Your task to perform on an android device: What is the recent news? Image 0: 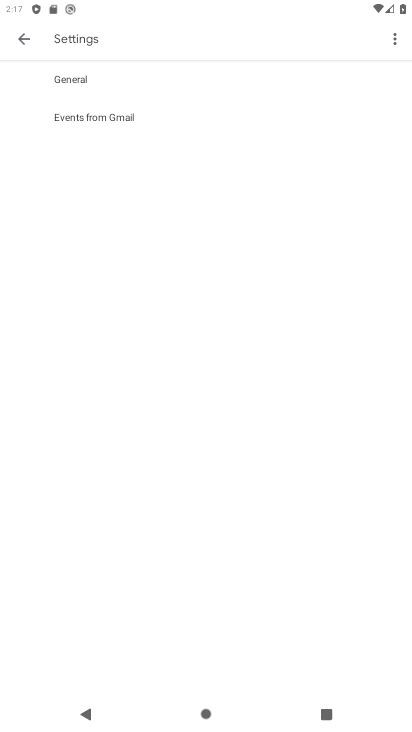
Step 0: press home button
Your task to perform on an android device: What is the recent news? Image 1: 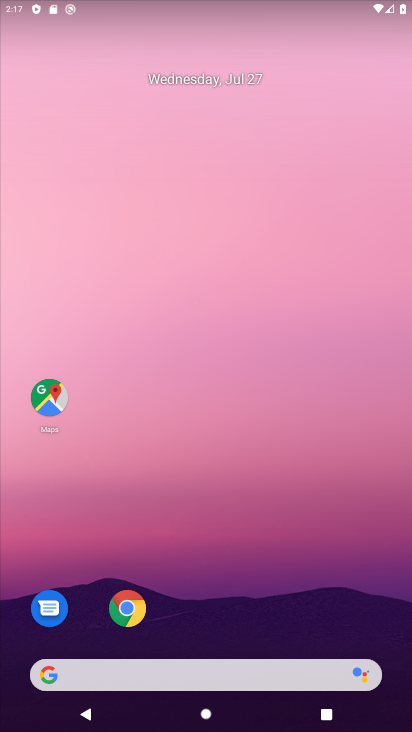
Step 1: click (186, 679)
Your task to perform on an android device: What is the recent news? Image 2: 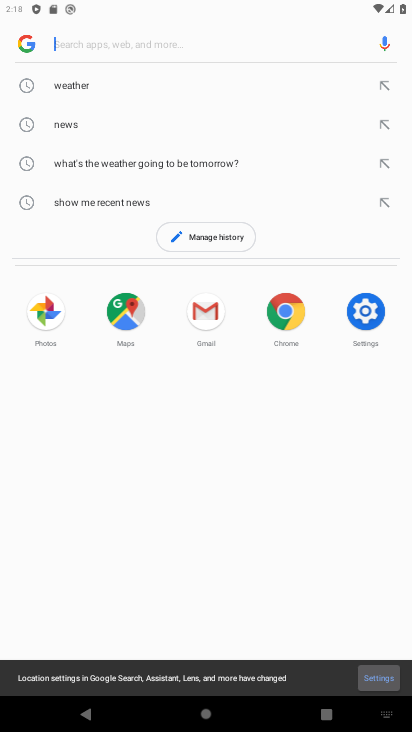
Step 2: type "What is the recent news?"
Your task to perform on an android device: What is the recent news? Image 3: 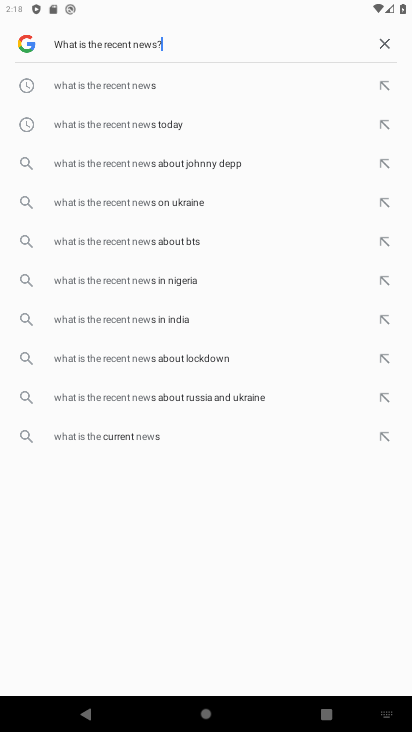
Step 3: press enter
Your task to perform on an android device: What is the recent news? Image 4: 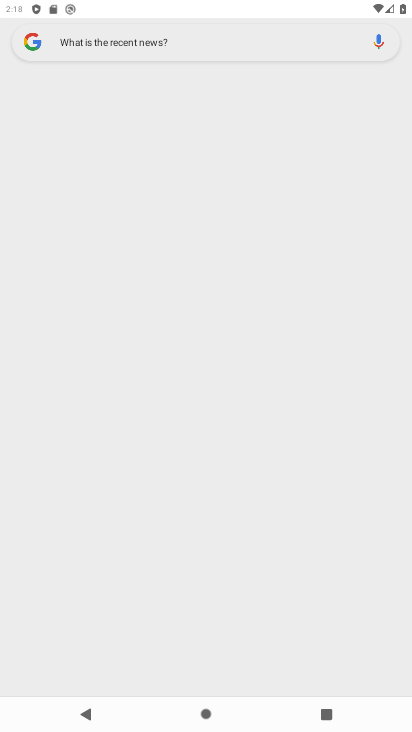
Step 4: task complete